Your task to perform on an android device: empty trash in google photos Image 0: 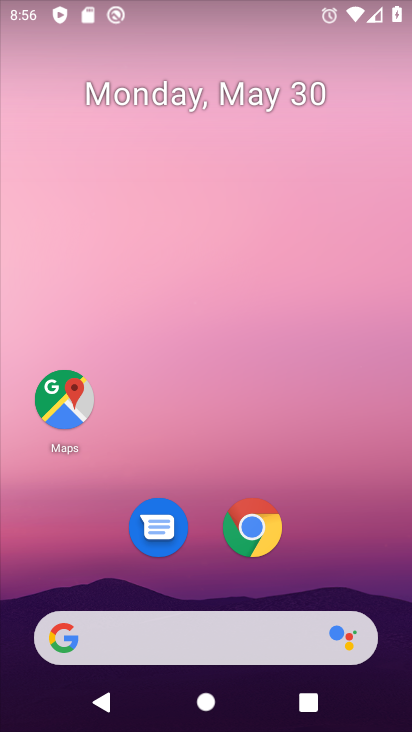
Step 0: drag from (296, 650) to (272, 35)
Your task to perform on an android device: empty trash in google photos Image 1: 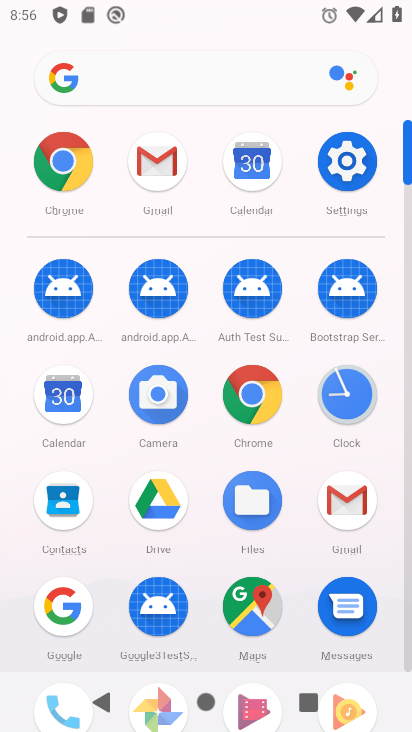
Step 1: drag from (257, 641) to (278, 312)
Your task to perform on an android device: empty trash in google photos Image 2: 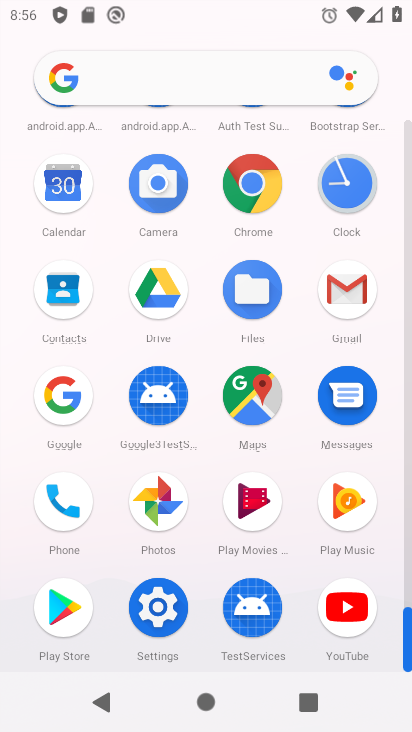
Step 2: click (159, 494)
Your task to perform on an android device: empty trash in google photos Image 3: 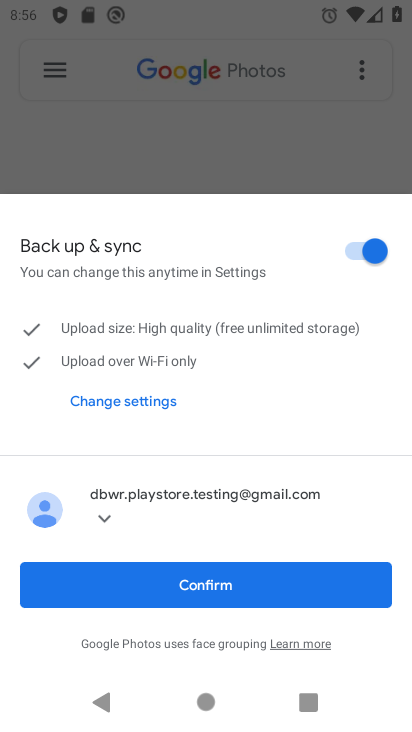
Step 3: click (257, 591)
Your task to perform on an android device: empty trash in google photos Image 4: 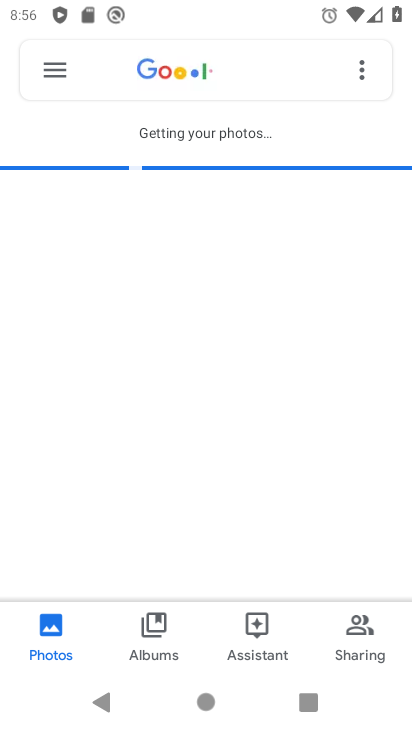
Step 4: click (56, 71)
Your task to perform on an android device: empty trash in google photos Image 5: 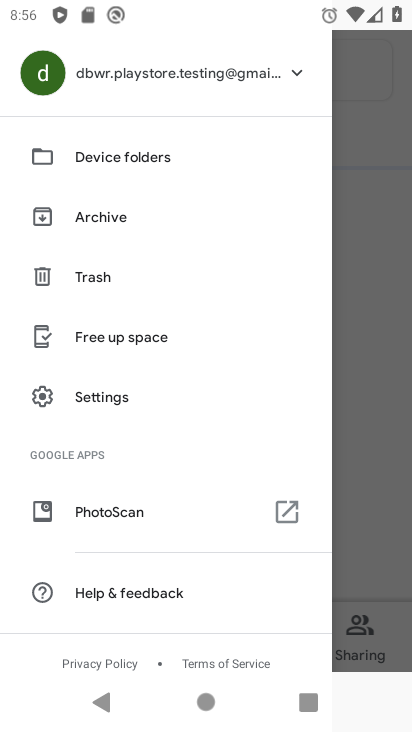
Step 5: click (86, 281)
Your task to perform on an android device: empty trash in google photos Image 6: 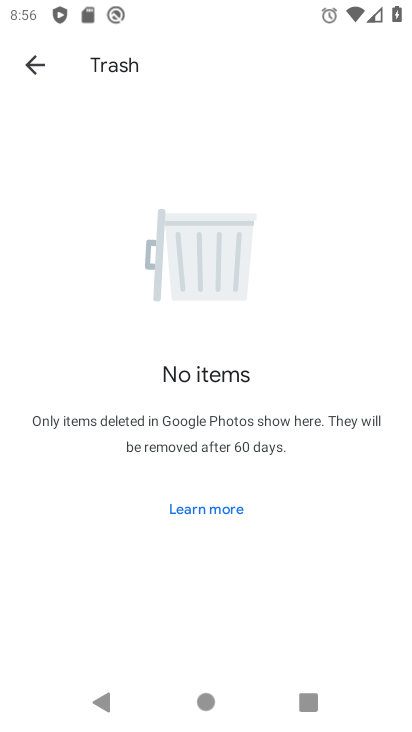
Step 6: task complete